Your task to perform on an android device: change the clock style Image 0: 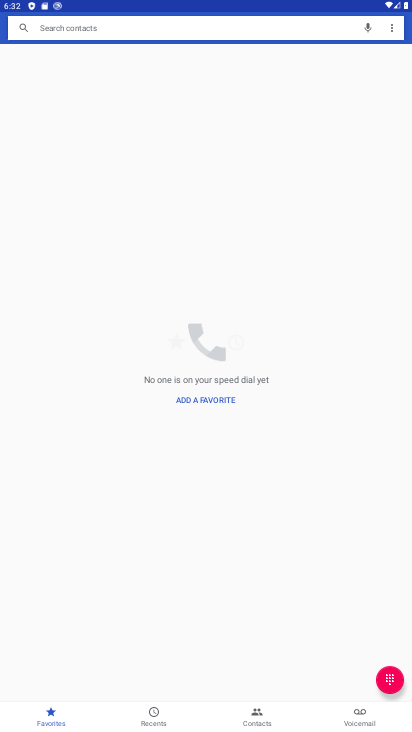
Step 0: press home button
Your task to perform on an android device: change the clock style Image 1: 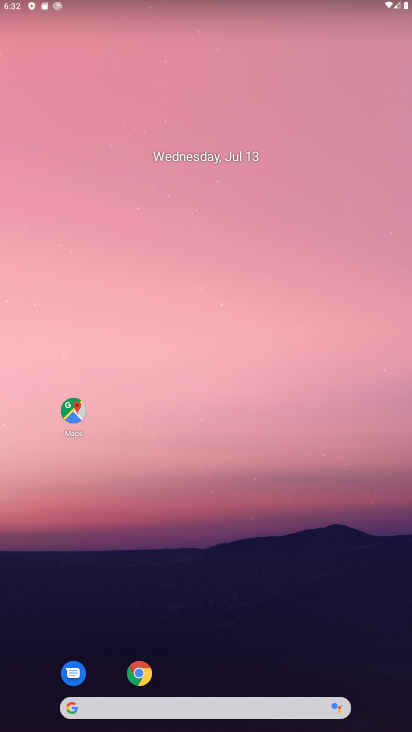
Step 1: drag from (237, 597) to (326, 31)
Your task to perform on an android device: change the clock style Image 2: 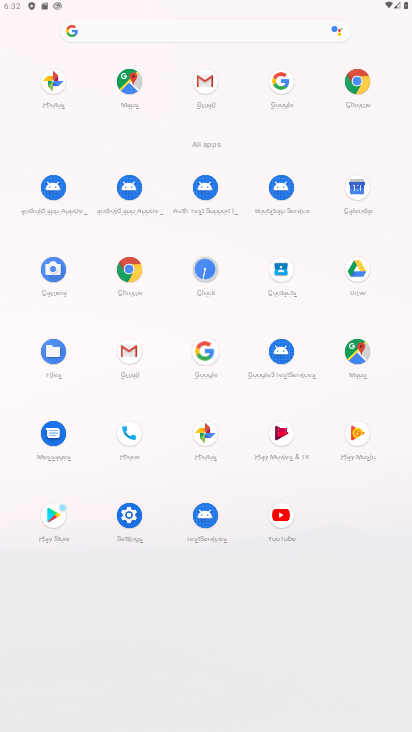
Step 2: click (203, 272)
Your task to perform on an android device: change the clock style Image 3: 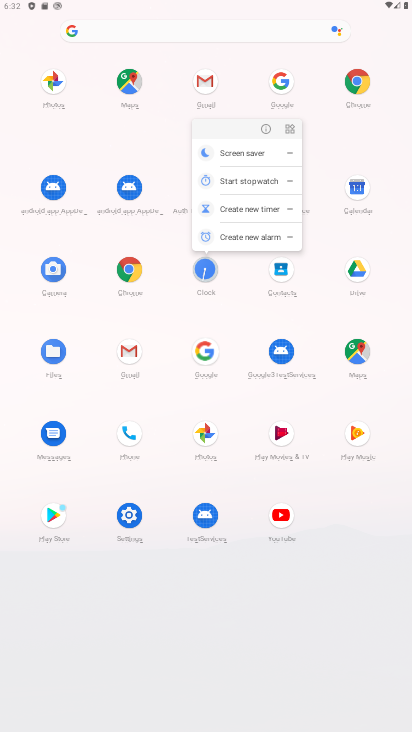
Step 3: click (203, 271)
Your task to perform on an android device: change the clock style Image 4: 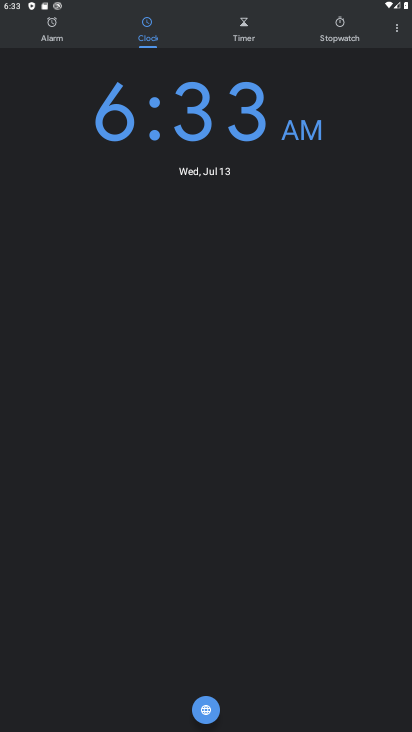
Step 4: click (385, 26)
Your task to perform on an android device: change the clock style Image 5: 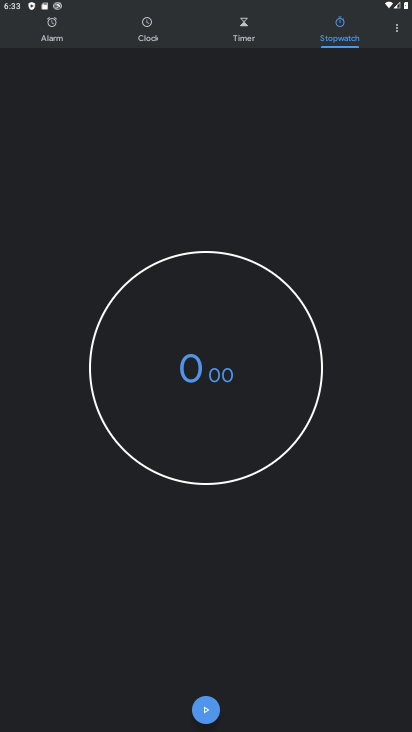
Step 5: click (408, 35)
Your task to perform on an android device: change the clock style Image 6: 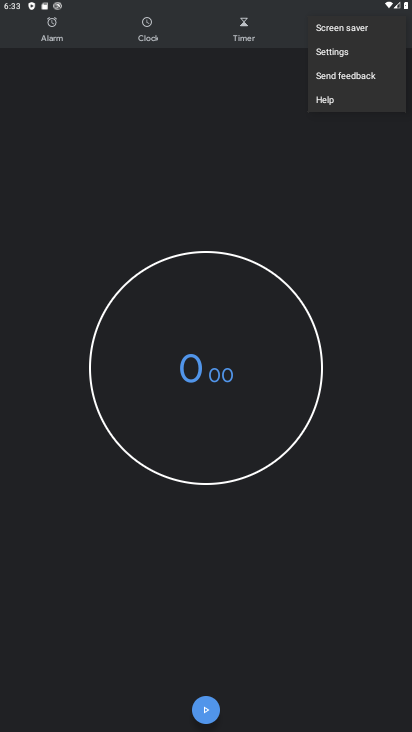
Step 6: click (343, 50)
Your task to perform on an android device: change the clock style Image 7: 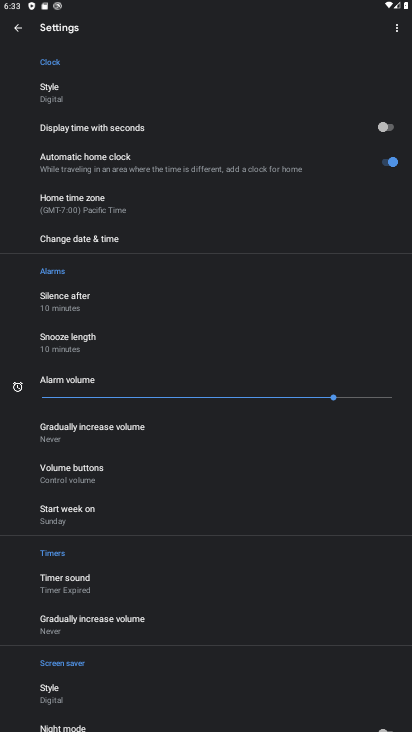
Step 7: click (55, 79)
Your task to perform on an android device: change the clock style Image 8: 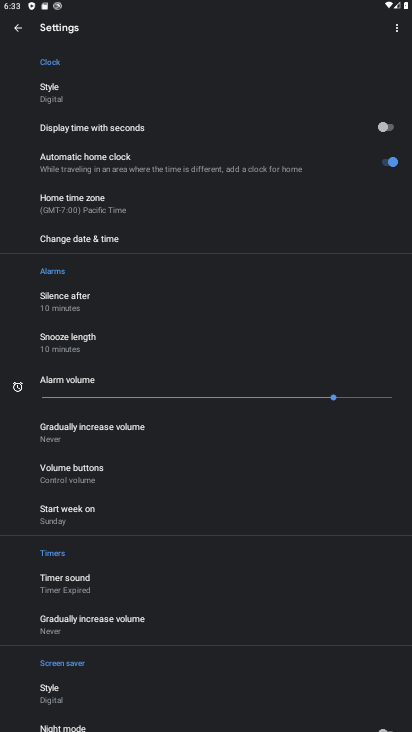
Step 8: click (56, 81)
Your task to perform on an android device: change the clock style Image 9: 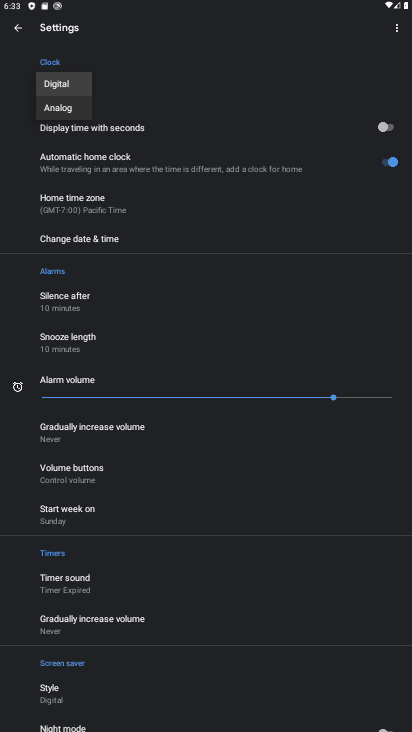
Step 9: click (66, 97)
Your task to perform on an android device: change the clock style Image 10: 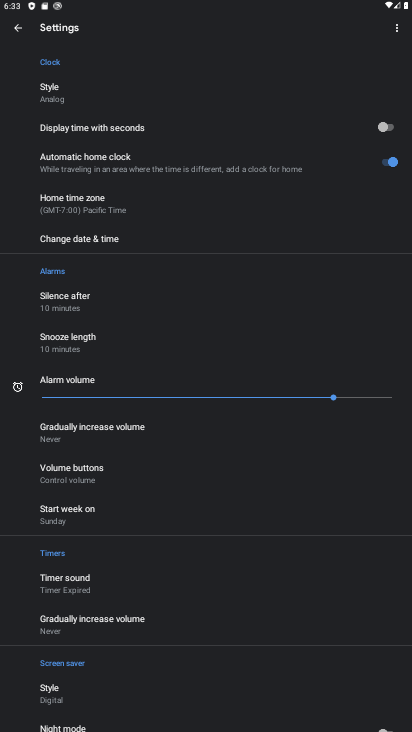
Step 10: task complete